Your task to perform on an android device: Where can I buy a nice beach tent? Image 0: 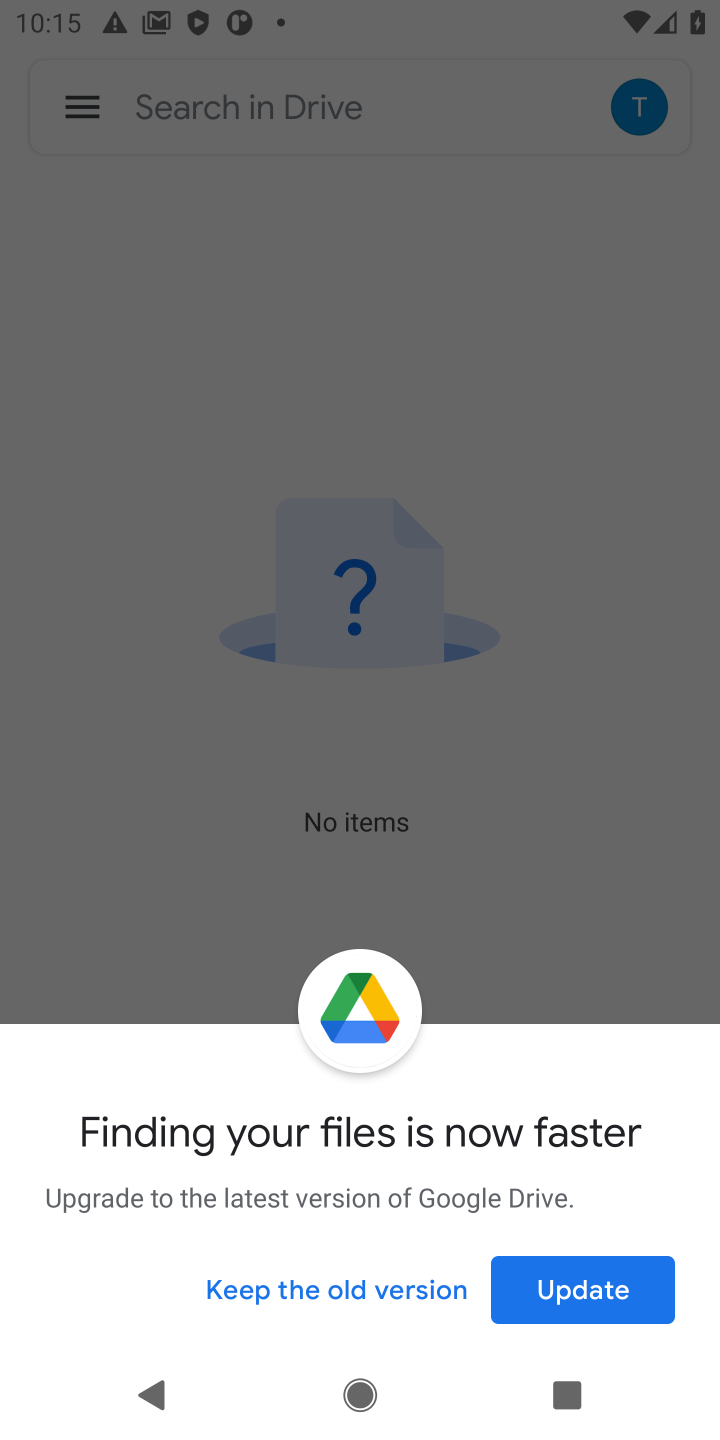
Step 0: press home button
Your task to perform on an android device: Where can I buy a nice beach tent? Image 1: 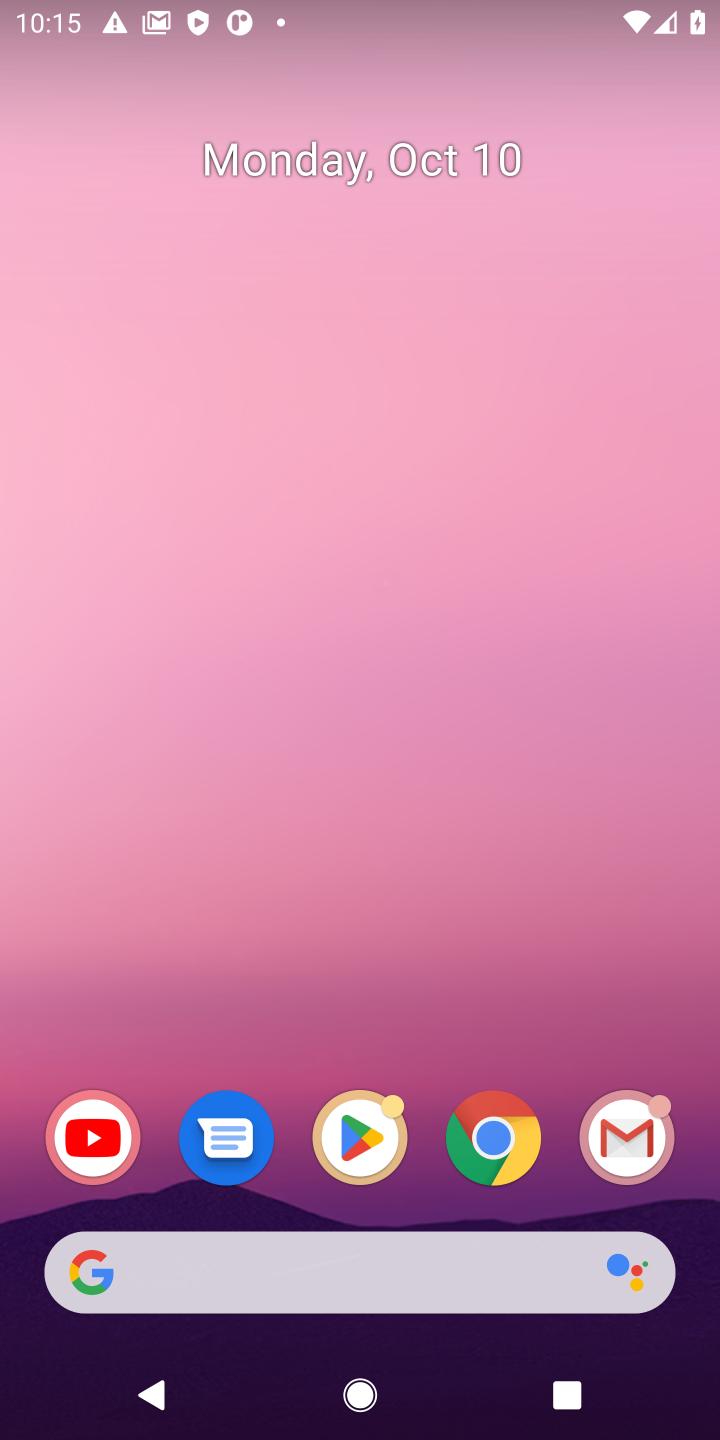
Step 1: click (230, 1275)
Your task to perform on an android device: Where can I buy a nice beach tent? Image 2: 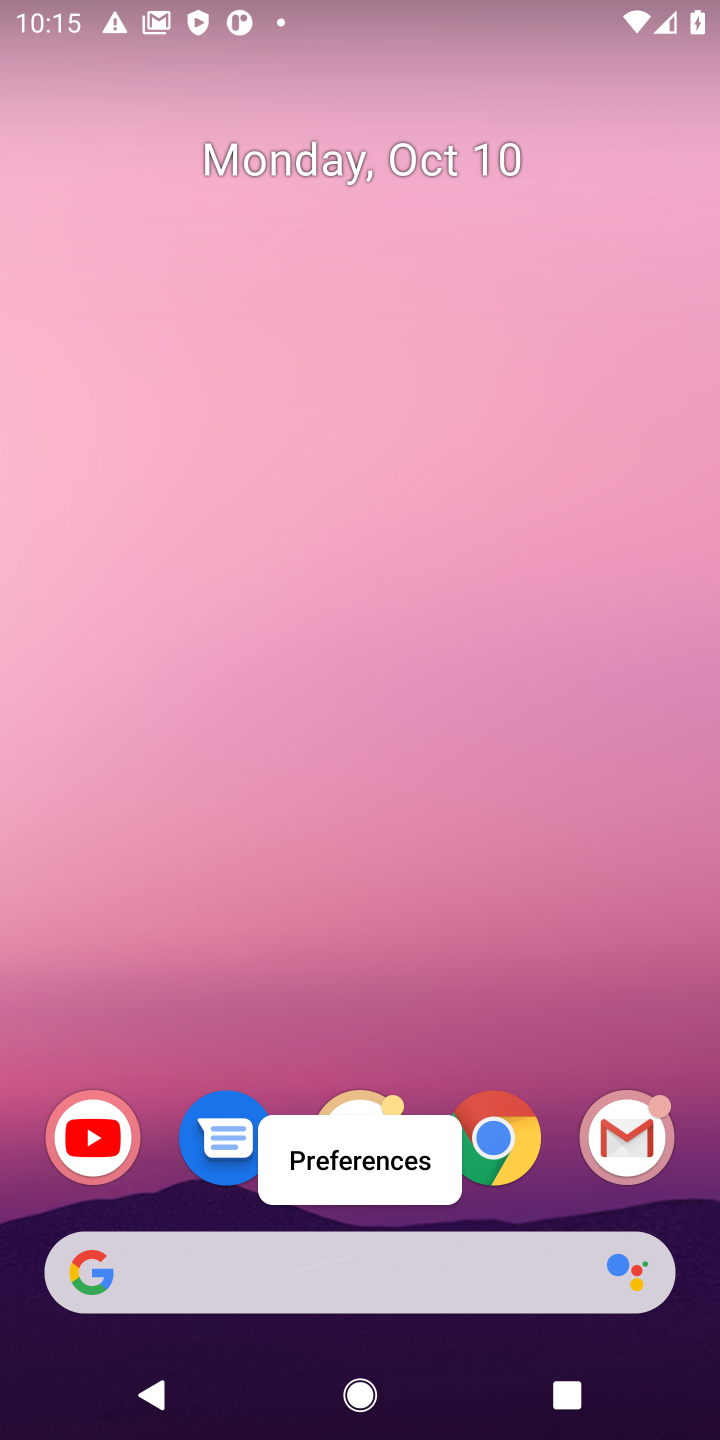
Step 2: click (97, 1264)
Your task to perform on an android device: Where can I buy a nice beach tent? Image 3: 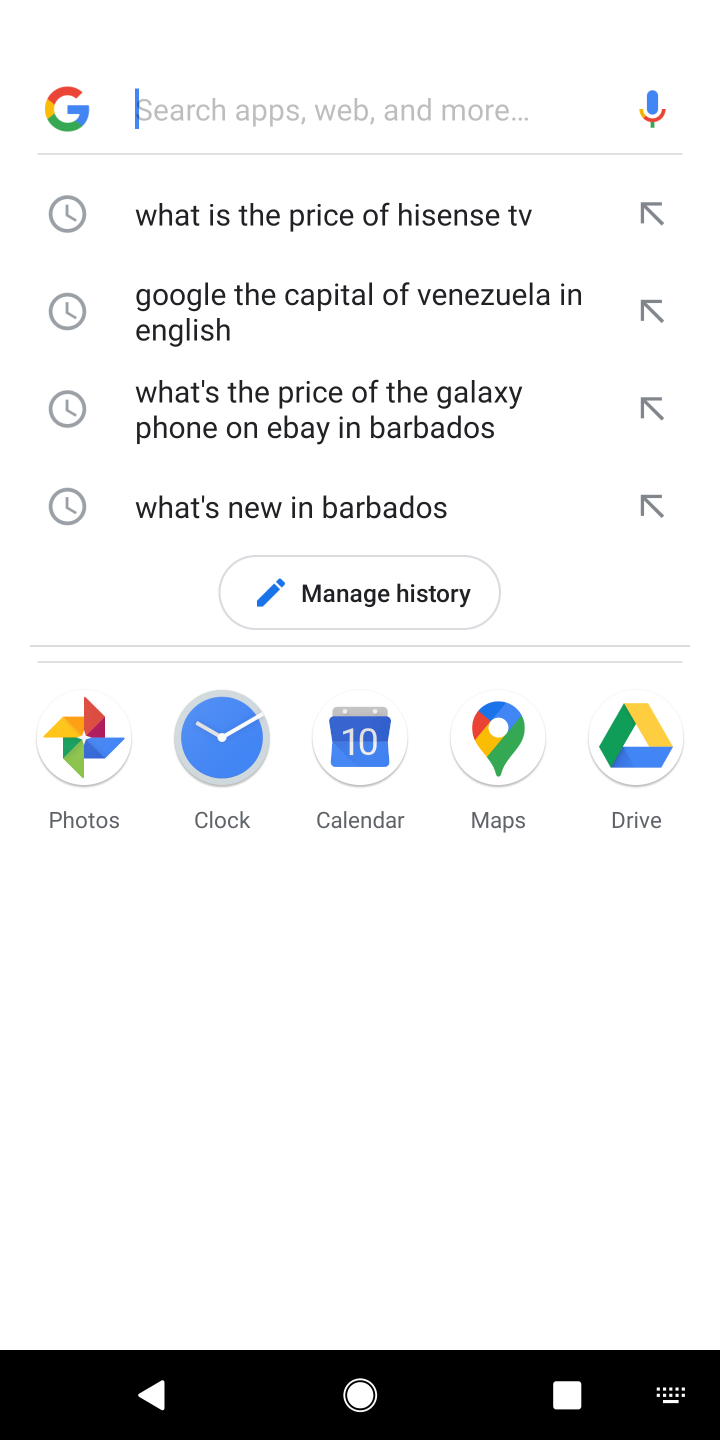
Step 3: click (178, 97)
Your task to perform on an android device: Where can I buy a nice beach tent? Image 4: 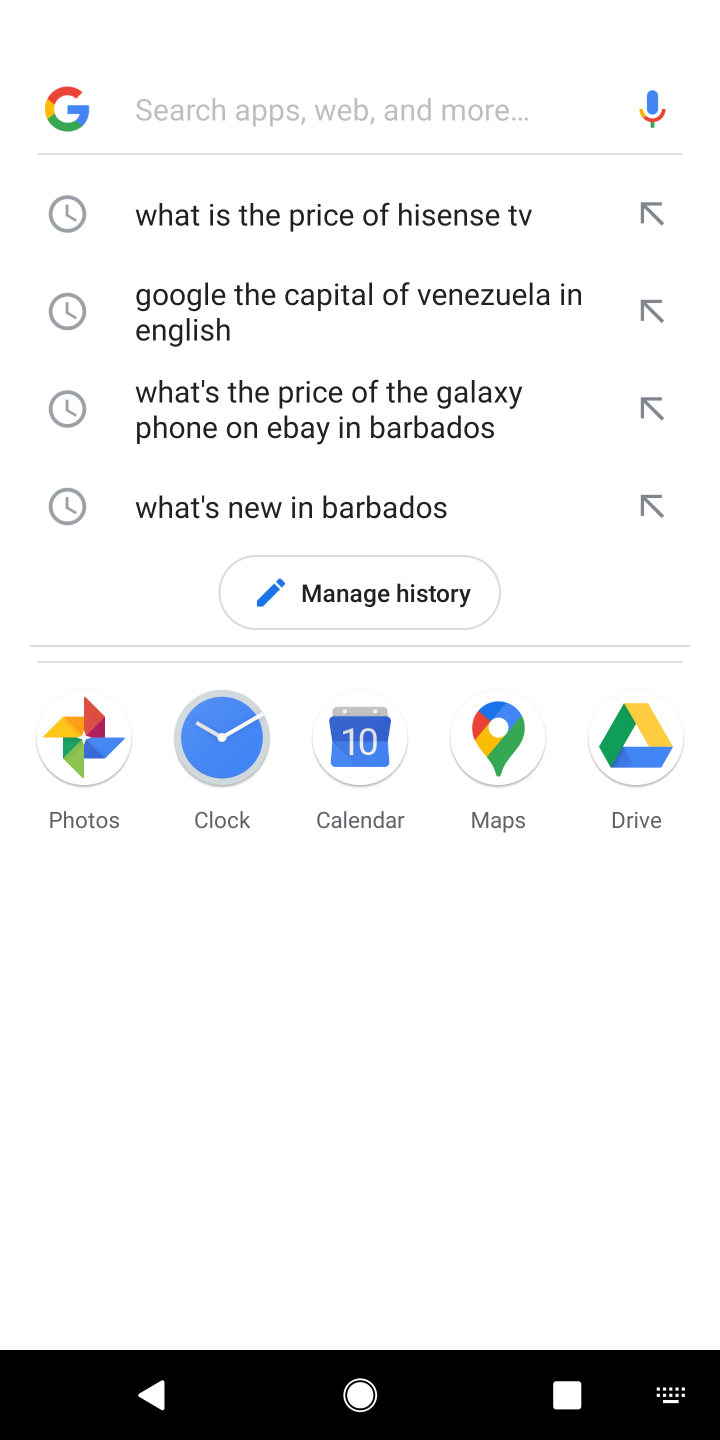
Step 4: type "Where can I buy a nice beach tent?"
Your task to perform on an android device: Where can I buy a nice beach tent? Image 5: 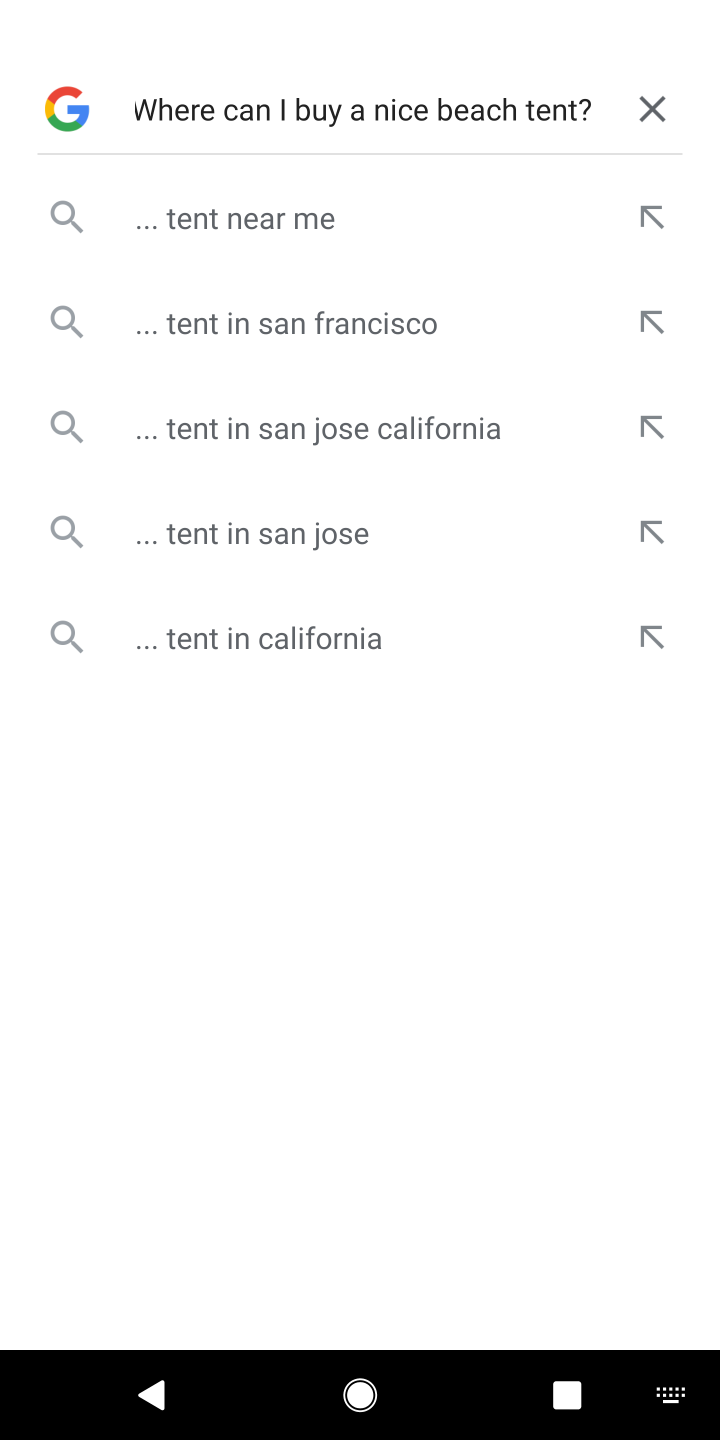
Step 5: click (269, 203)
Your task to perform on an android device: Where can I buy a nice beach tent? Image 6: 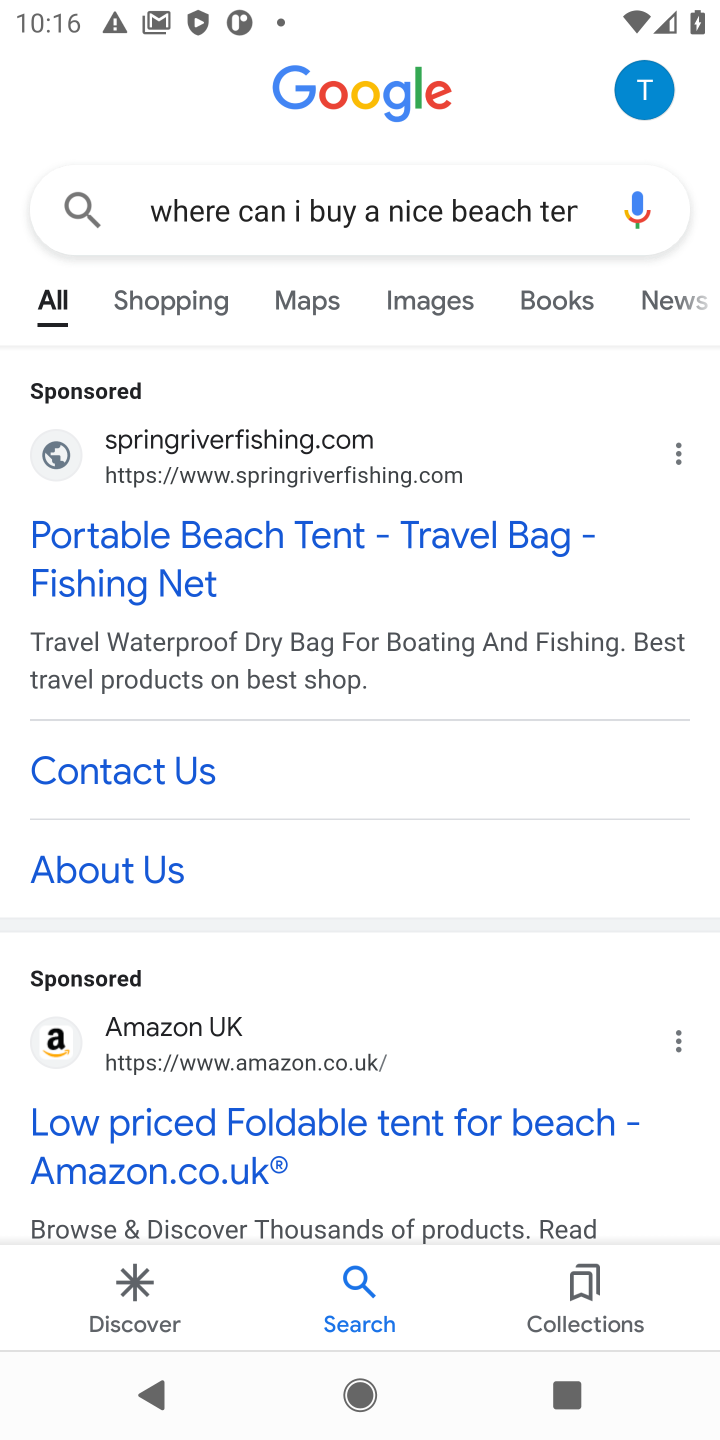
Step 6: click (176, 538)
Your task to perform on an android device: Where can I buy a nice beach tent? Image 7: 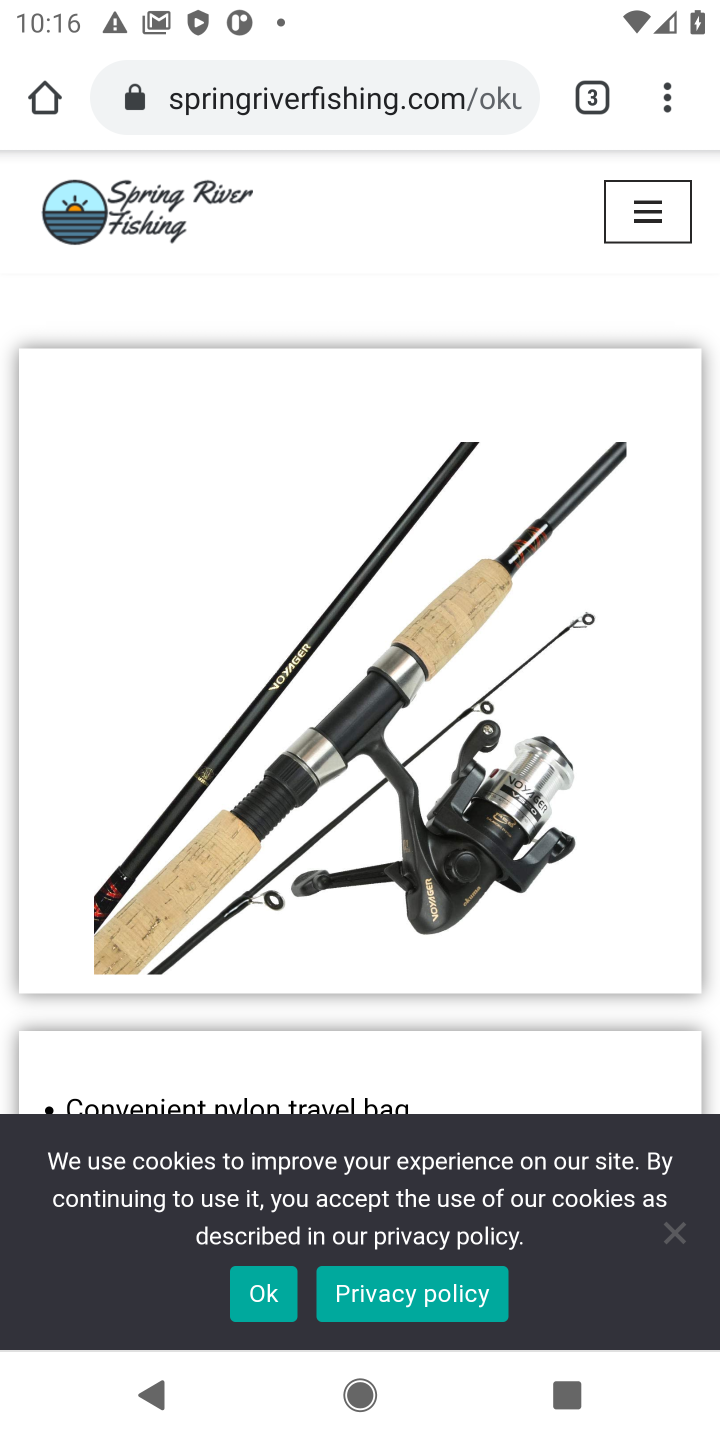
Step 7: task complete